Your task to perform on an android device: allow notifications from all sites in the chrome app Image 0: 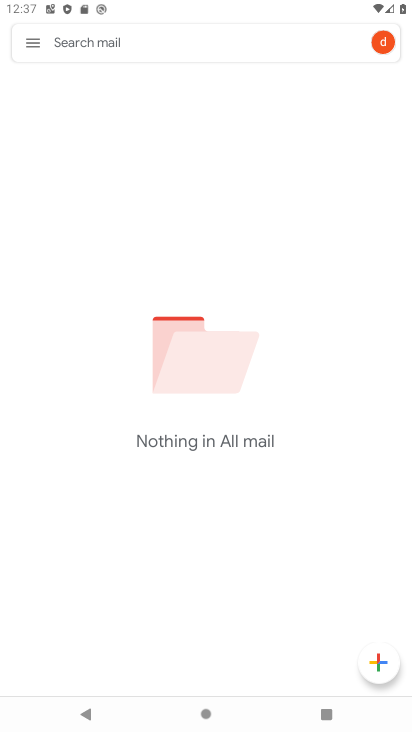
Step 0: press home button
Your task to perform on an android device: allow notifications from all sites in the chrome app Image 1: 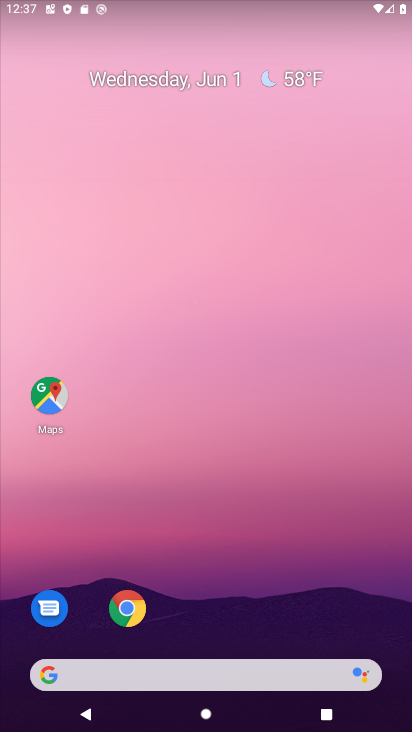
Step 1: drag from (233, 580) to (295, 221)
Your task to perform on an android device: allow notifications from all sites in the chrome app Image 2: 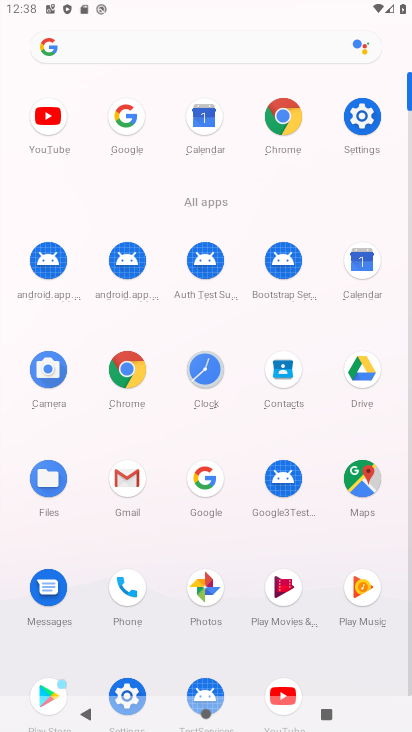
Step 2: click (364, 114)
Your task to perform on an android device: allow notifications from all sites in the chrome app Image 3: 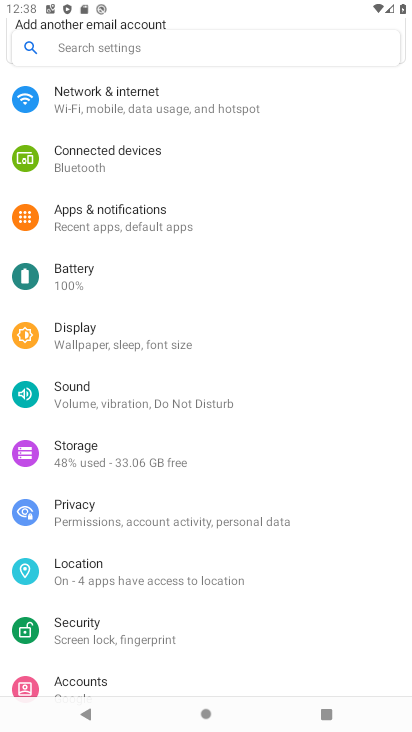
Step 3: press home button
Your task to perform on an android device: allow notifications from all sites in the chrome app Image 4: 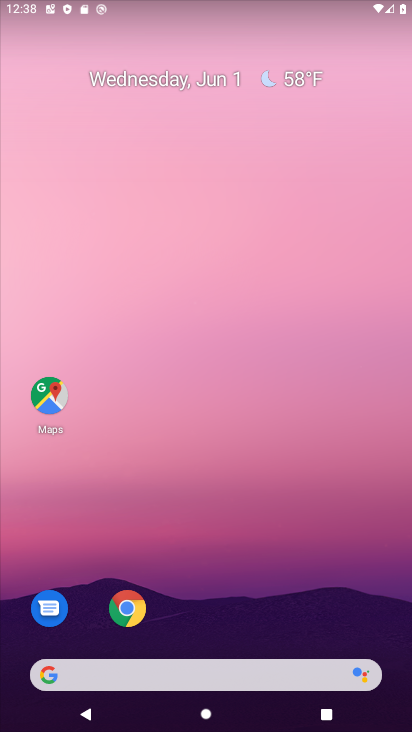
Step 4: click (144, 613)
Your task to perform on an android device: allow notifications from all sites in the chrome app Image 5: 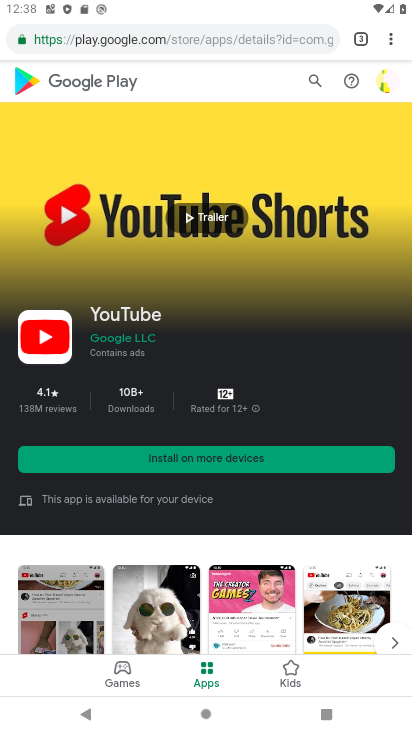
Step 5: click (390, 36)
Your task to perform on an android device: allow notifications from all sites in the chrome app Image 6: 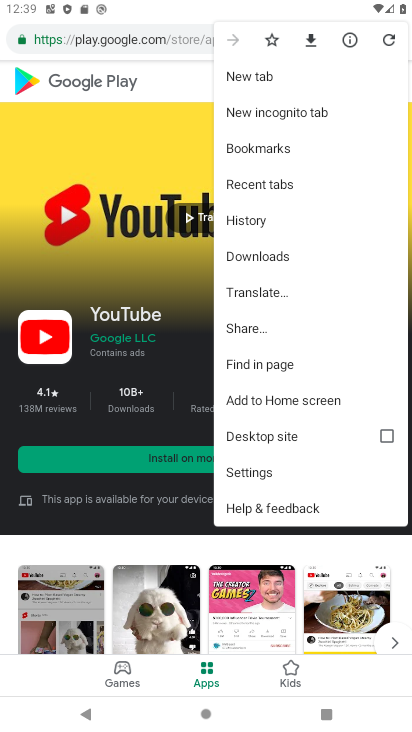
Step 6: click (264, 475)
Your task to perform on an android device: allow notifications from all sites in the chrome app Image 7: 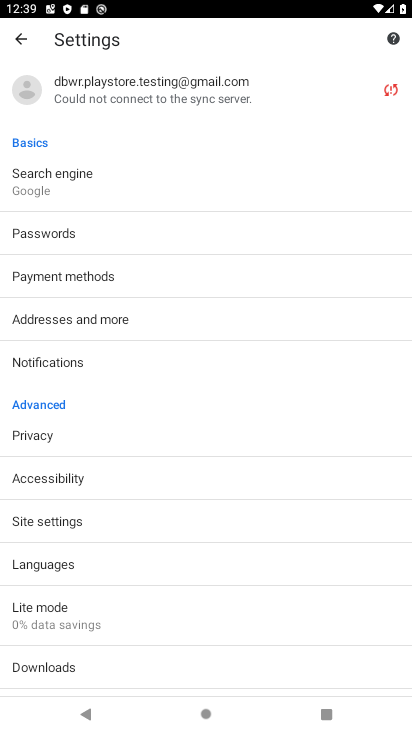
Step 7: drag from (57, 617) to (127, 349)
Your task to perform on an android device: allow notifications from all sites in the chrome app Image 8: 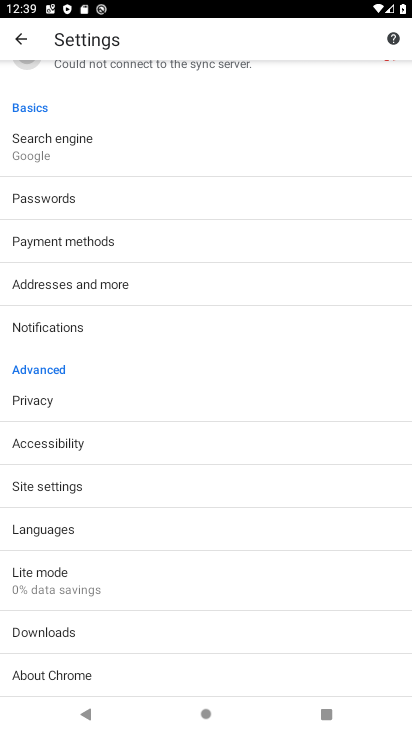
Step 8: click (74, 324)
Your task to perform on an android device: allow notifications from all sites in the chrome app Image 9: 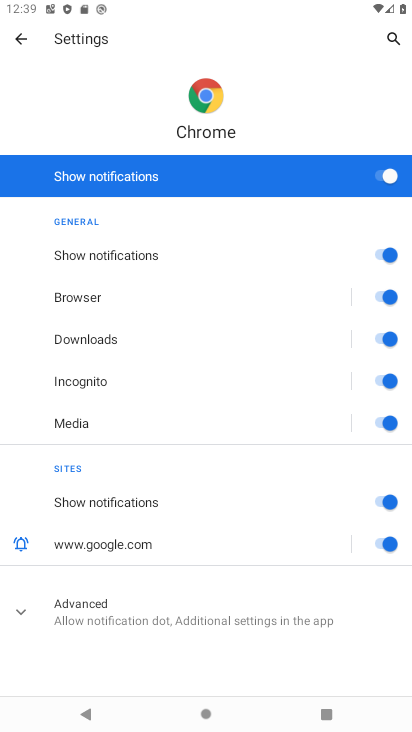
Step 9: task complete